Your task to perform on an android device: Open the web browser Image 0: 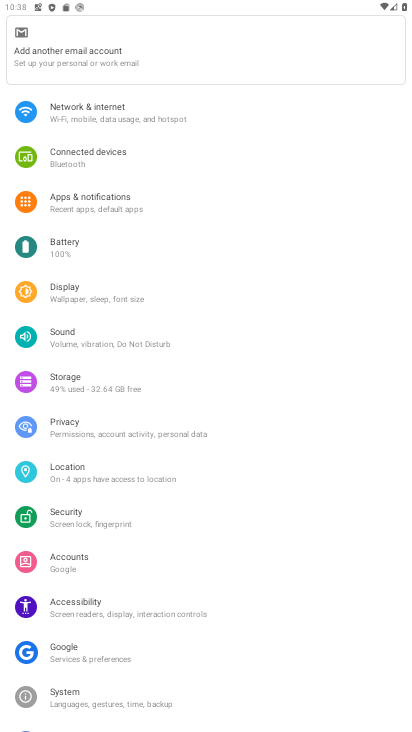
Step 0: press home button
Your task to perform on an android device: Open the web browser Image 1: 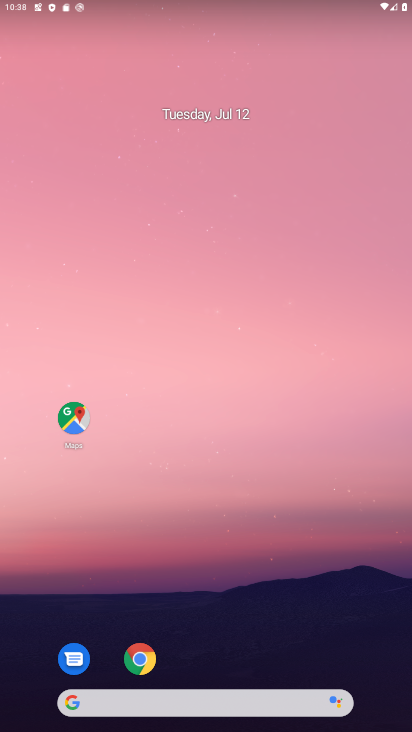
Step 1: click (146, 663)
Your task to perform on an android device: Open the web browser Image 2: 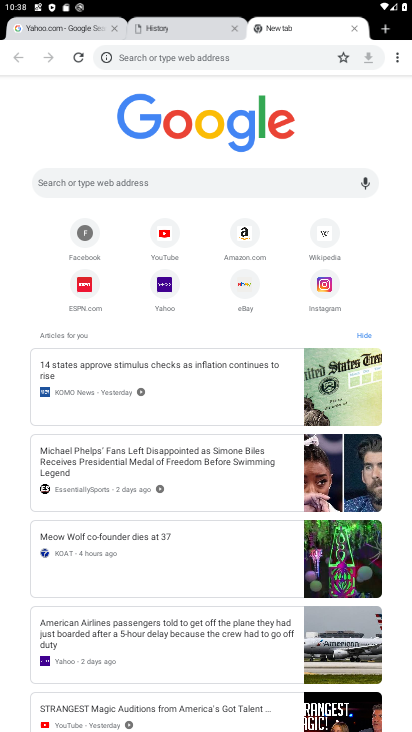
Step 2: task complete